Your task to perform on an android device: open the mobile data screen to see how much data has been used Image 0: 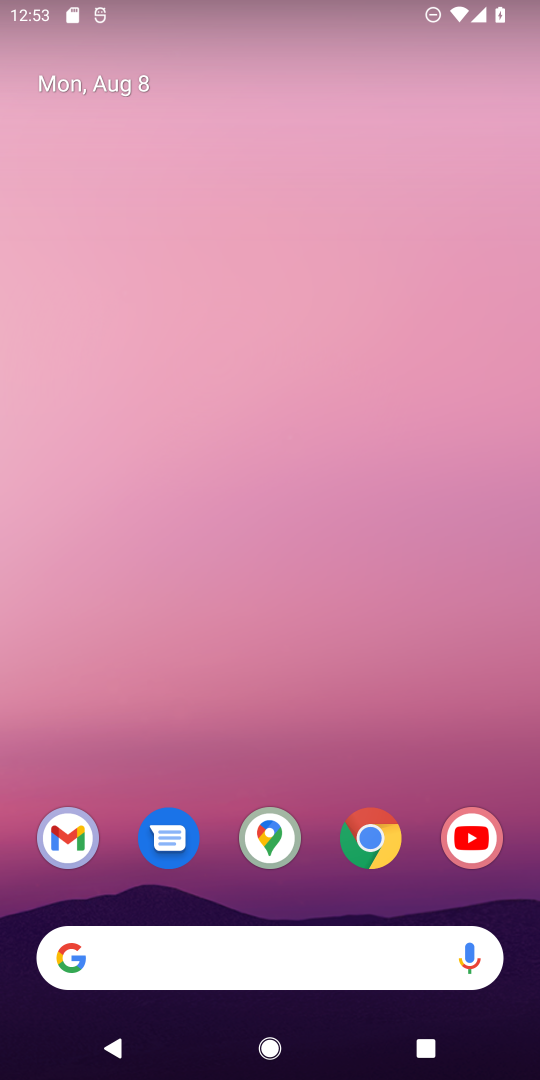
Step 0: press home button
Your task to perform on an android device: open the mobile data screen to see how much data has been used Image 1: 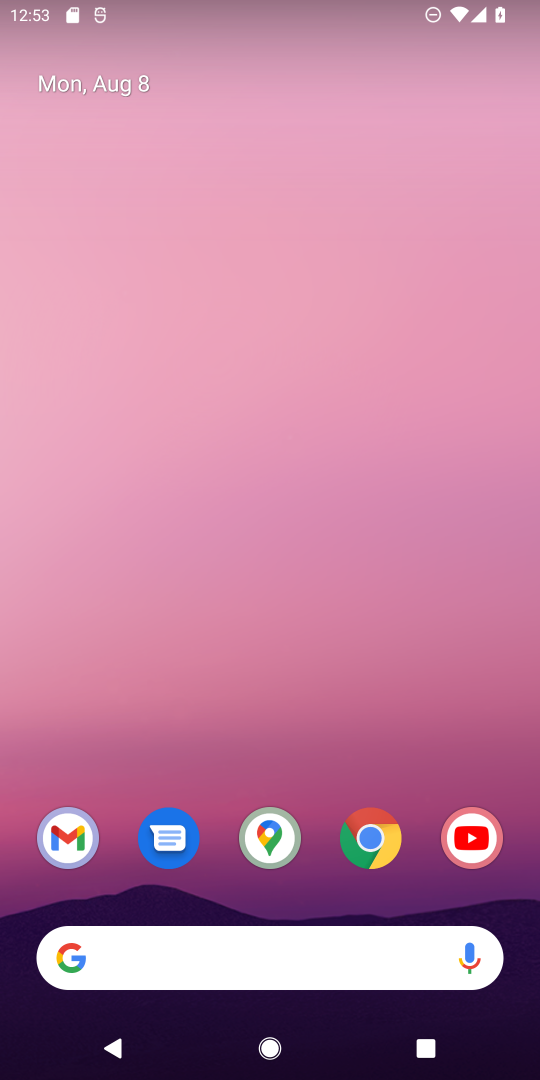
Step 1: drag from (346, 752) to (395, 1)
Your task to perform on an android device: open the mobile data screen to see how much data has been used Image 2: 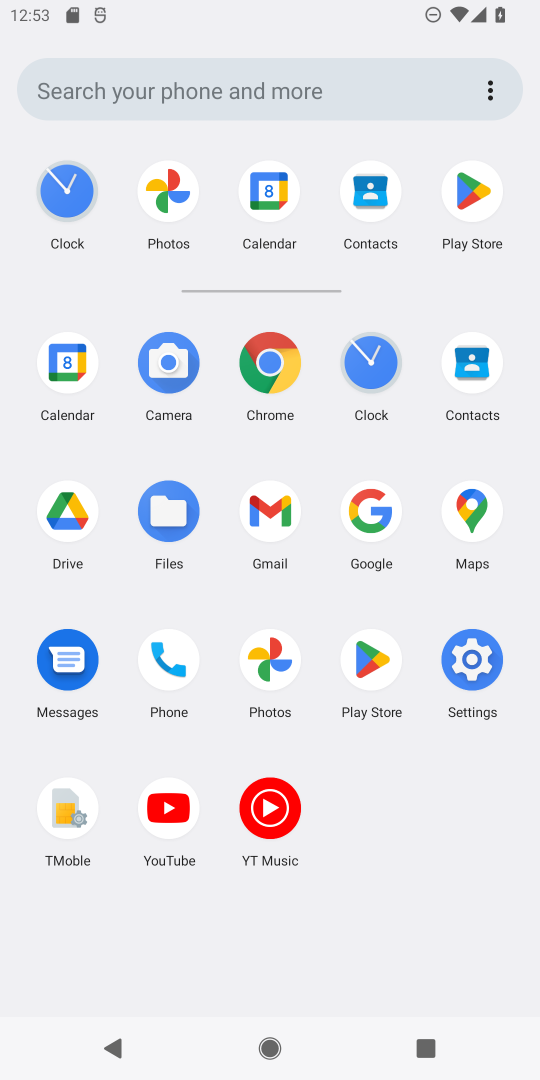
Step 2: click (486, 665)
Your task to perform on an android device: open the mobile data screen to see how much data has been used Image 3: 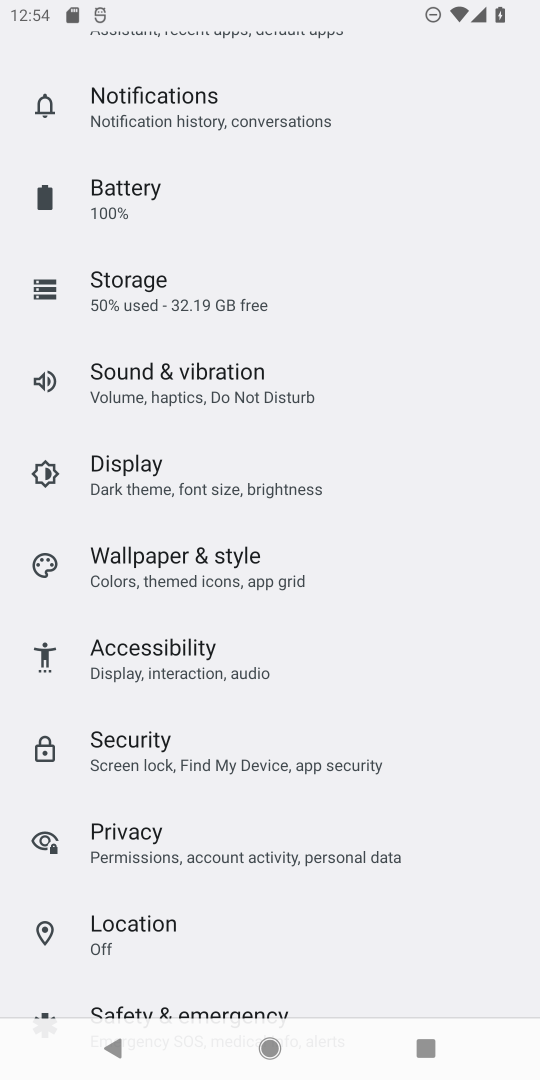
Step 3: drag from (201, 158) to (213, 739)
Your task to perform on an android device: open the mobile data screen to see how much data has been used Image 4: 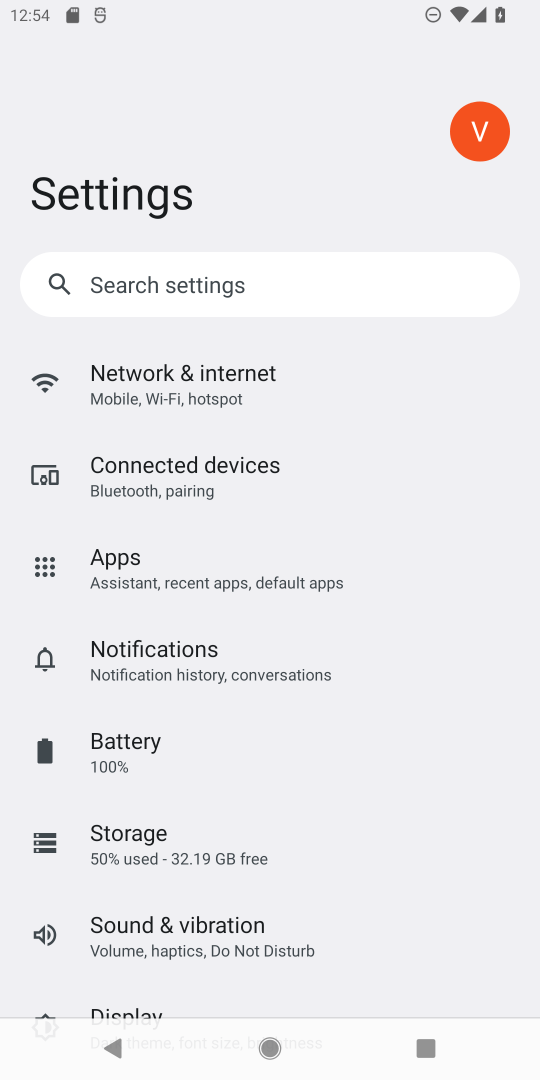
Step 4: click (186, 378)
Your task to perform on an android device: open the mobile data screen to see how much data has been used Image 5: 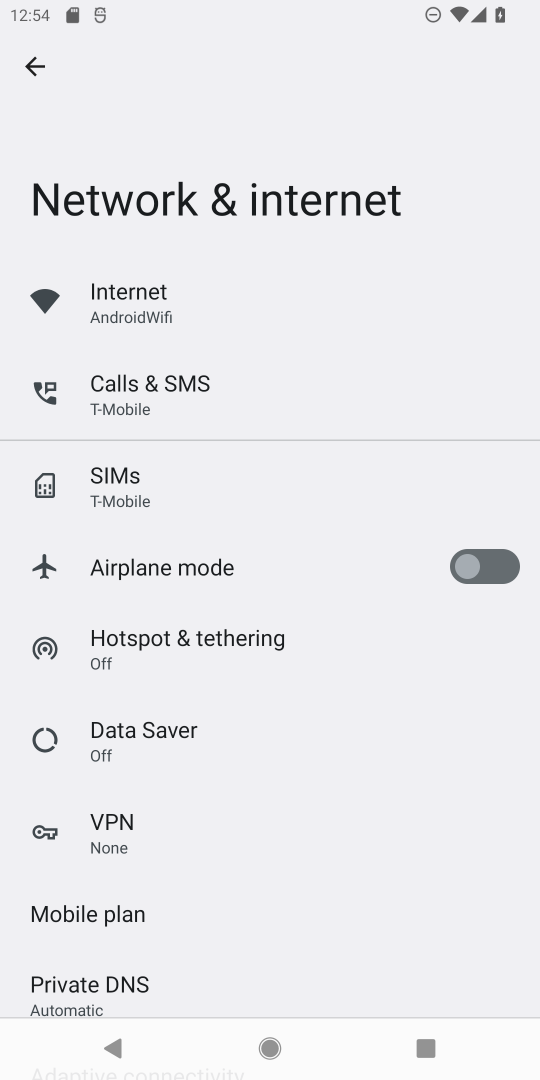
Step 5: click (111, 307)
Your task to perform on an android device: open the mobile data screen to see how much data has been used Image 6: 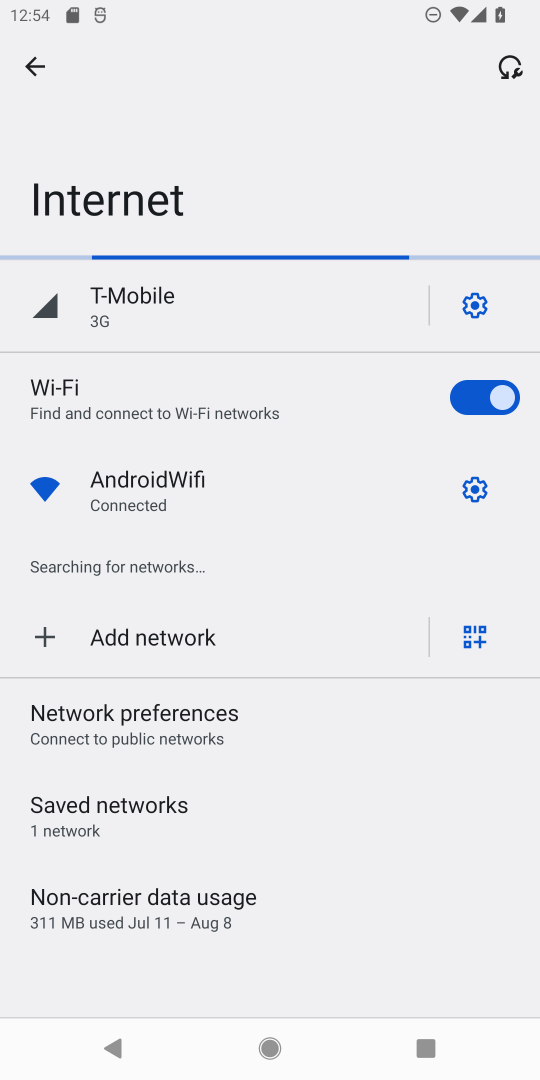
Step 6: click (208, 302)
Your task to perform on an android device: open the mobile data screen to see how much data has been used Image 7: 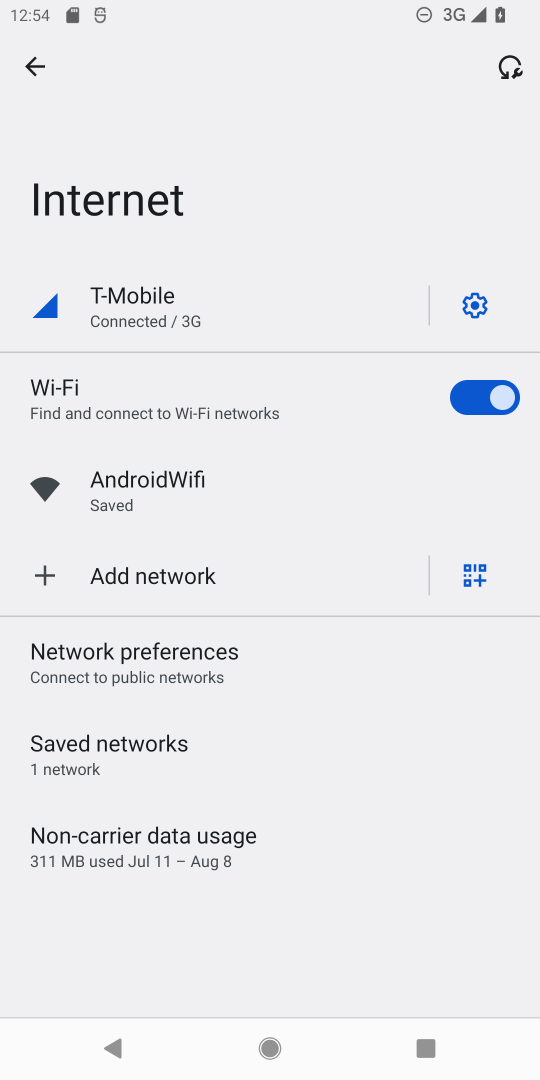
Step 7: click (159, 307)
Your task to perform on an android device: open the mobile data screen to see how much data has been used Image 8: 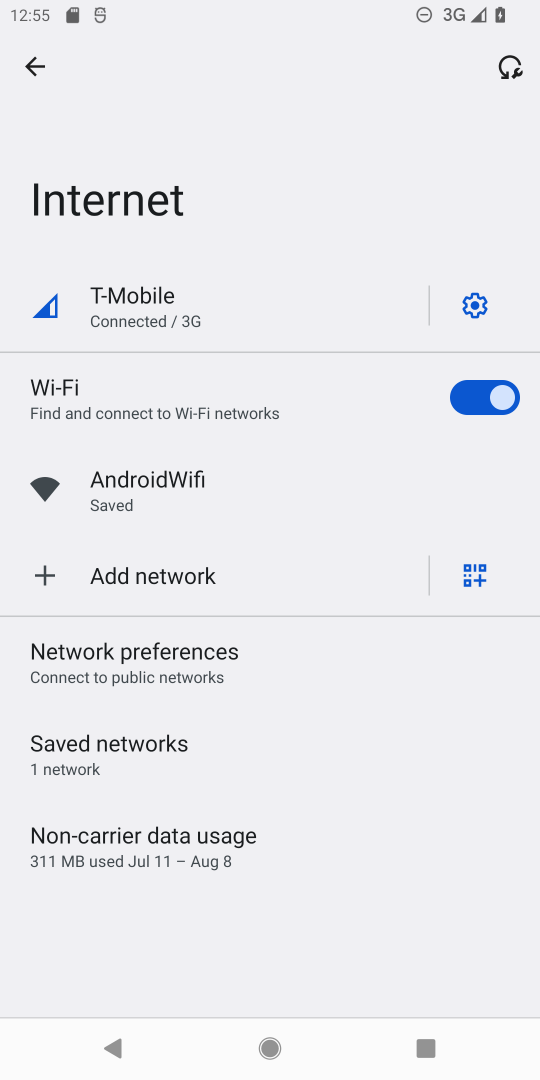
Step 8: click (165, 851)
Your task to perform on an android device: open the mobile data screen to see how much data has been used Image 9: 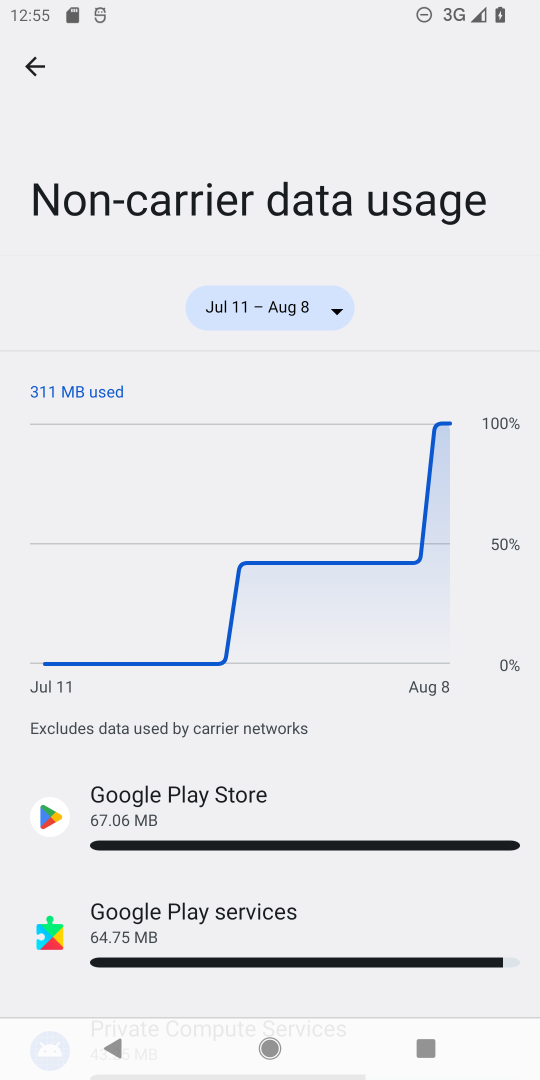
Step 9: task complete